Your task to perform on an android device: Go to calendar. Show me events next week Image 0: 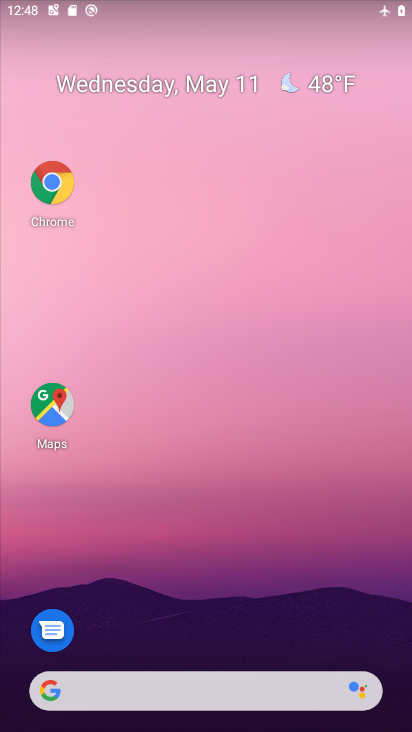
Step 0: drag from (183, 676) to (270, 63)
Your task to perform on an android device: Go to calendar. Show me events next week Image 1: 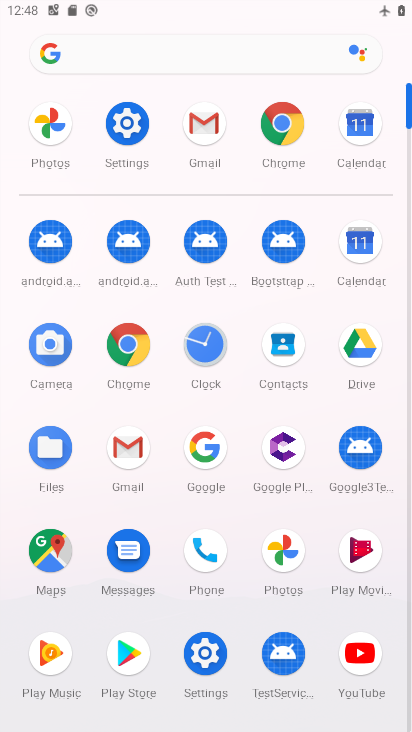
Step 1: click (357, 249)
Your task to perform on an android device: Go to calendar. Show me events next week Image 2: 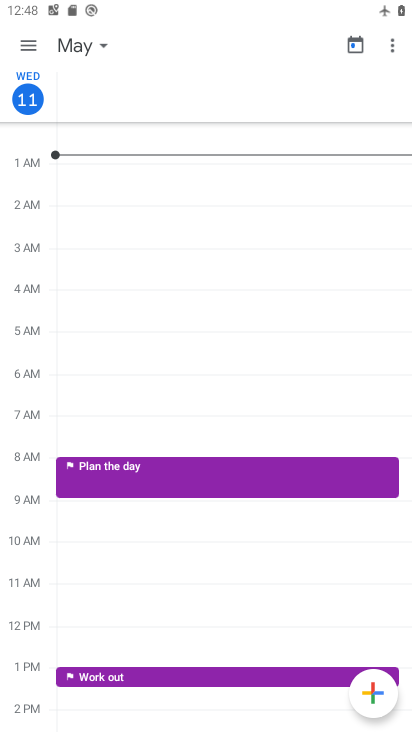
Step 2: click (352, 43)
Your task to perform on an android device: Go to calendar. Show me events next week Image 3: 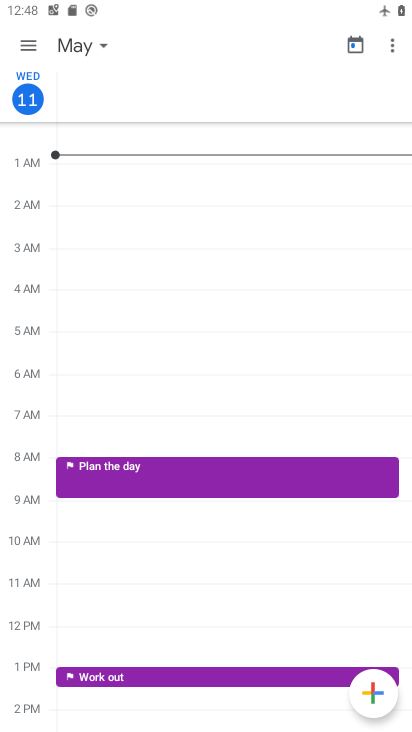
Step 3: click (350, 44)
Your task to perform on an android device: Go to calendar. Show me events next week Image 4: 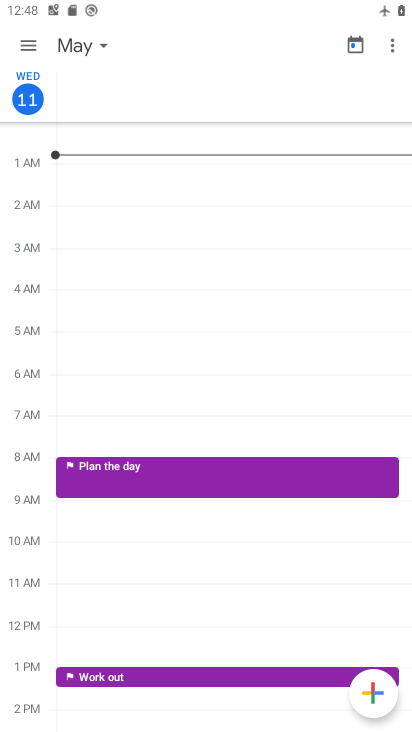
Step 4: click (351, 46)
Your task to perform on an android device: Go to calendar. Show me events next week Image 5: 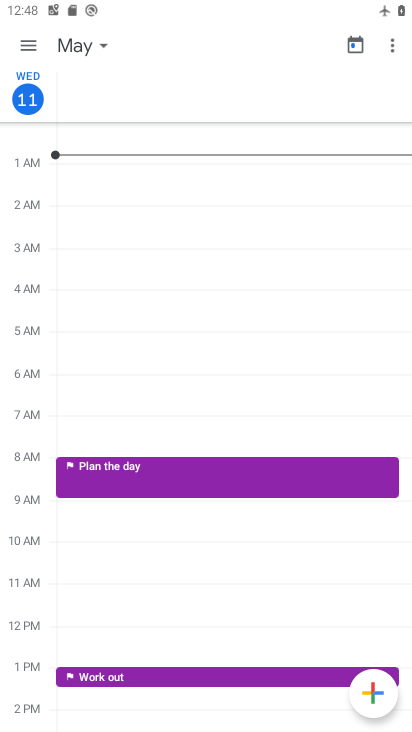
Step 5: click (22, 38)
Your task to perform on an android device: Go to calendar. Show me events next week Image 6: 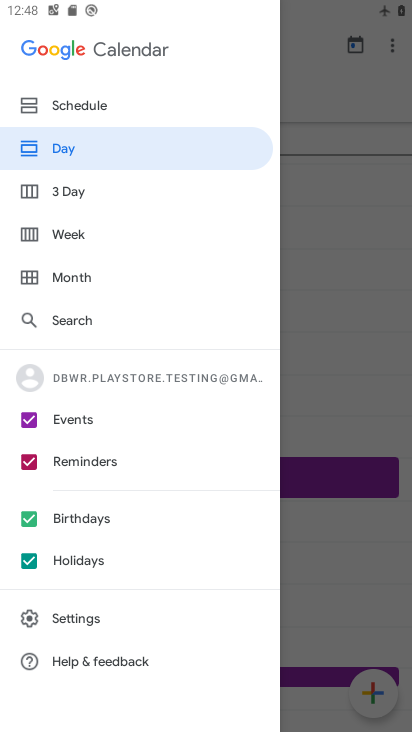
Step 6: click (61, 226)
Your task to perform on an android device: Go to calendar. Show me events next week Image 7: 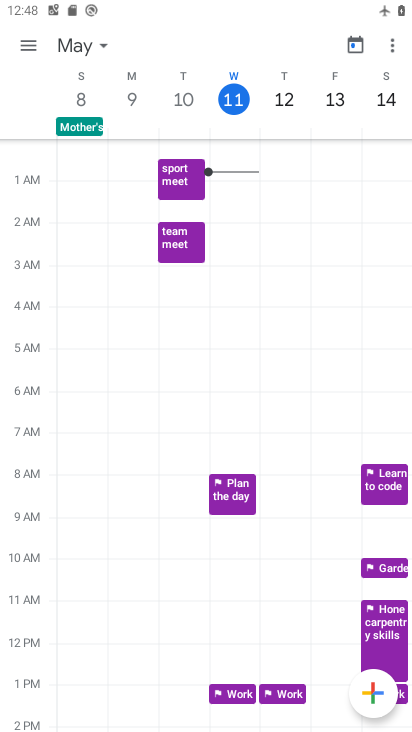
Step 7: task complete